Your task to perform on an android device: Do I have any events tomorrow? Image 0: 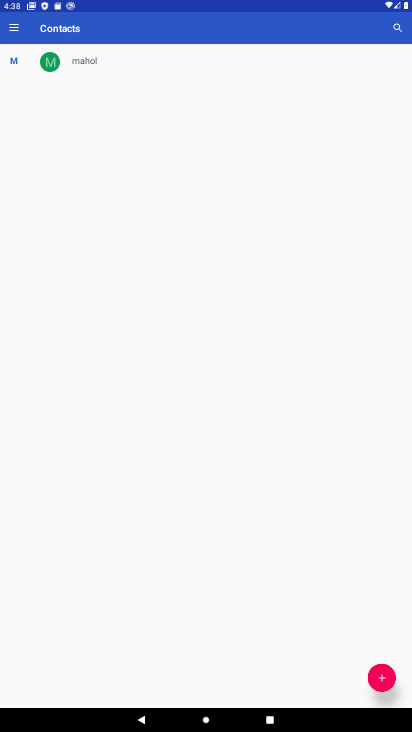
Step 0: press home button
Your task to perform on an android device: Do I have any events tomorrow? Image 1: 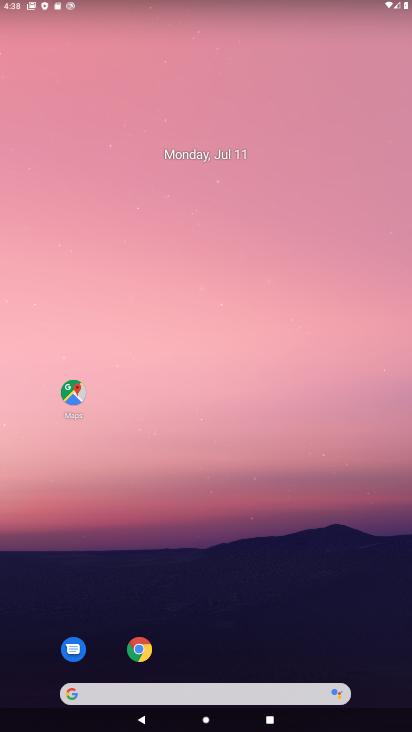
Step 1: drag from (266, 577) to (245, 114)
Your task to perform on an android device: Do I have any events tomorrow? Image 2: 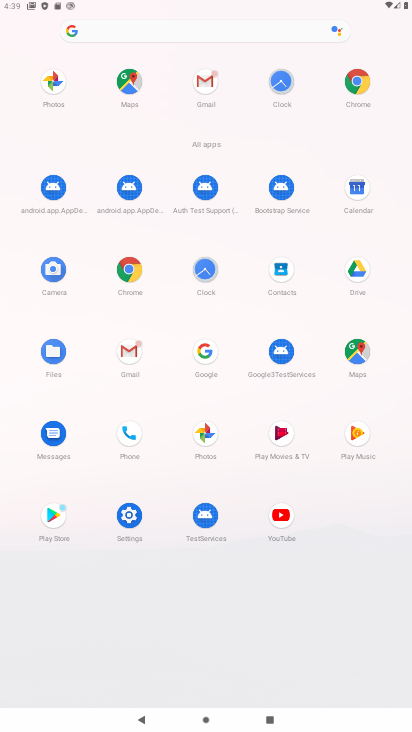
Step 2: click (359, 187)
Your task to perform on an android device: Do I have any events tomorrow? Image 3: 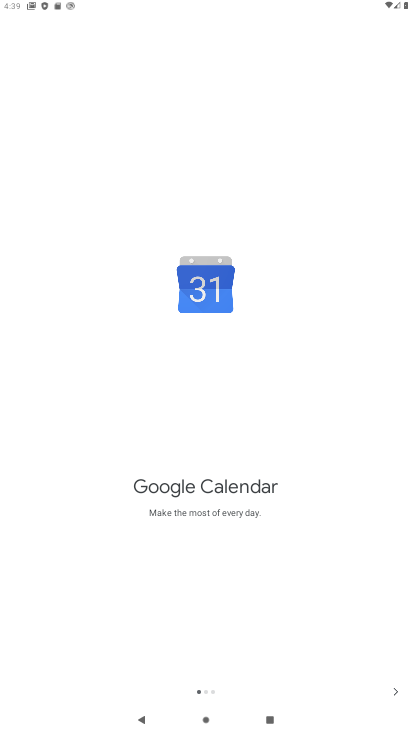
Step 3: click (402, 687)
Your task to perform on an android device: Do I have any events tomorrow? Image 4: 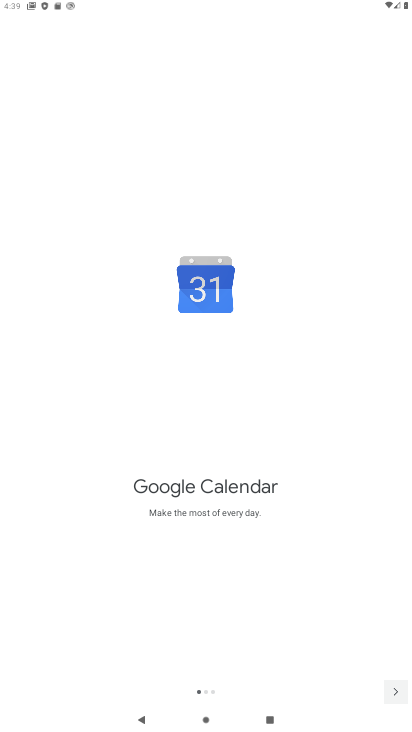
Step 4: click (395, 686)
Your task to perform on an android device: Do I have any events tomorrow? Image 5: 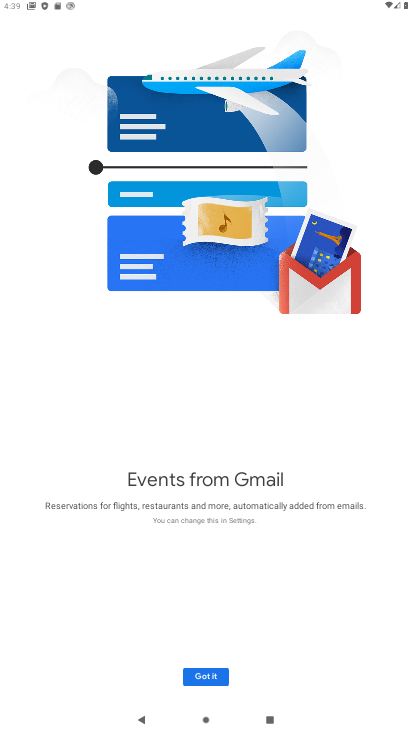
Step 5: click (198, 674)
Your task to perform on an android device: Do I have any events tomorrow? Image 6: 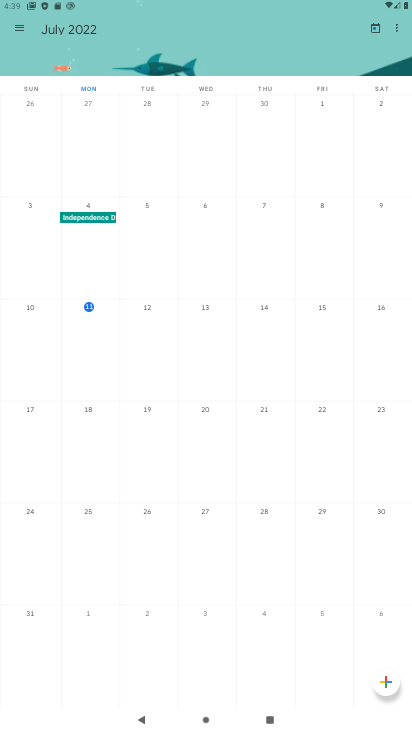
Step 6: click (141, 310)
Your task to perform on an android device: Do I have any events tomorrow? Image 7: 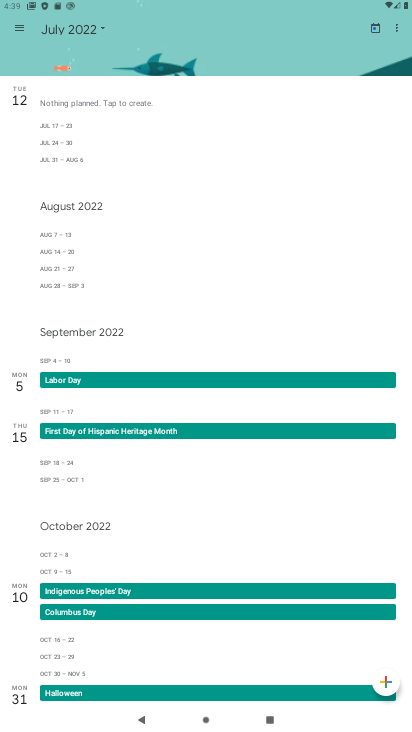
Step 7: click (12, 27)
Your task to perform on an android device: Do I have any events tomorrow? Image 8: 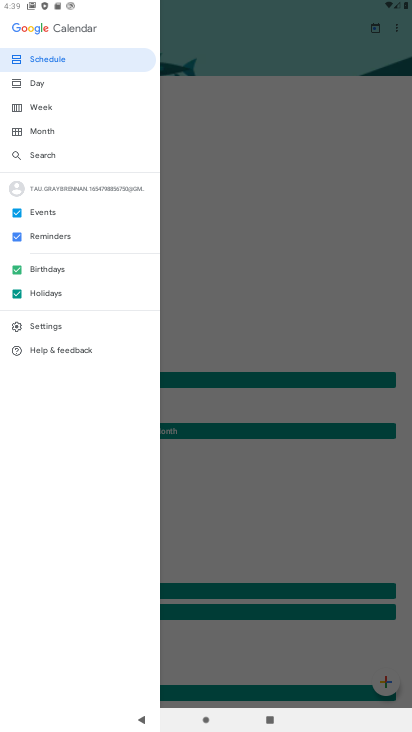
Step 8: click (16, 27)
Your task to perform on an android device: Do I have any events tomorrow? Image 9: 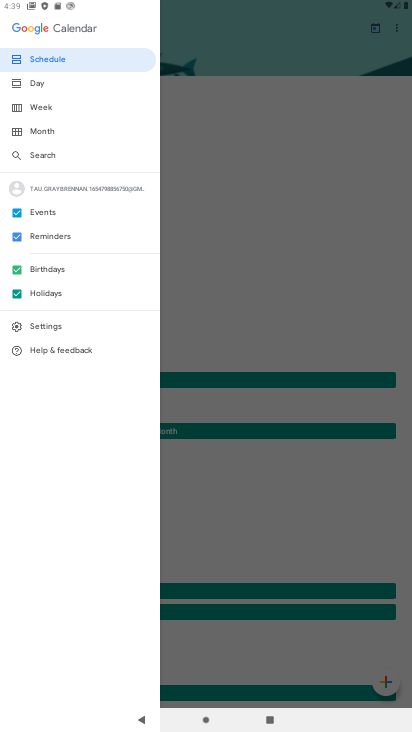
Step 9: click (42, 87)
Your task to perform on an android device: Do I have any events tomorrow? Image 10: 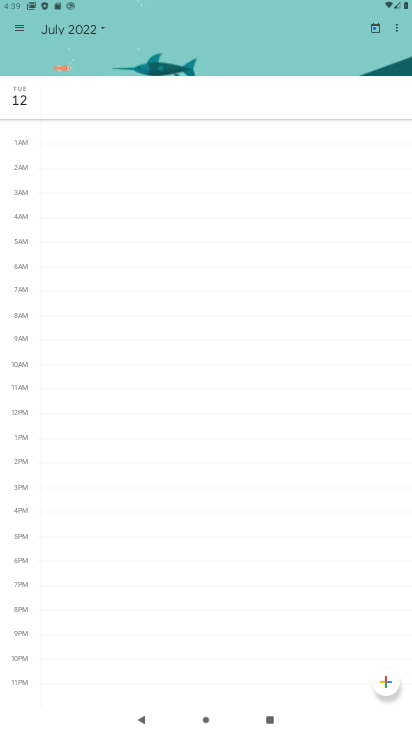
Step 10: task complete